Your task to perform on an android device: Go to Yahoo.com Image 0: 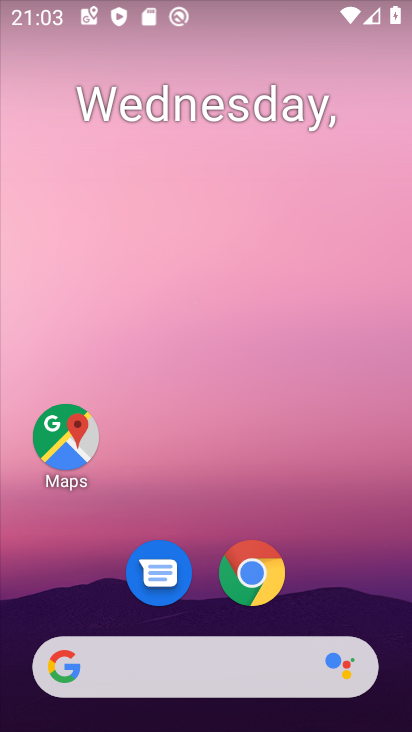
Step 0: click (252, 567)
Your task to perform on an android device: Go to Yahoo.com Image 1: 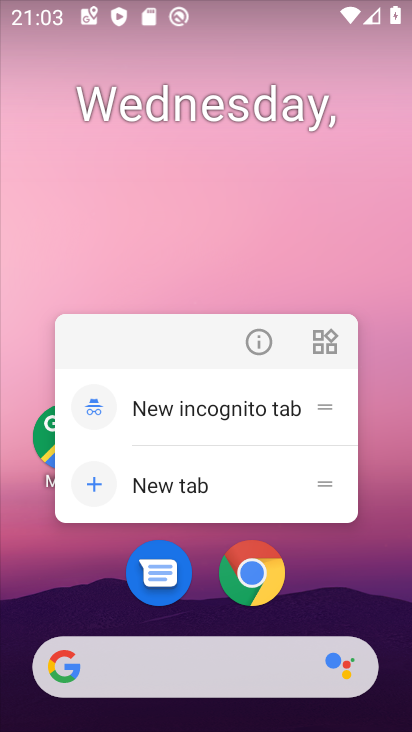
Step 1: click (252, 567)
Your task to perform on an android device: Go to Yahoo.com Image 2: 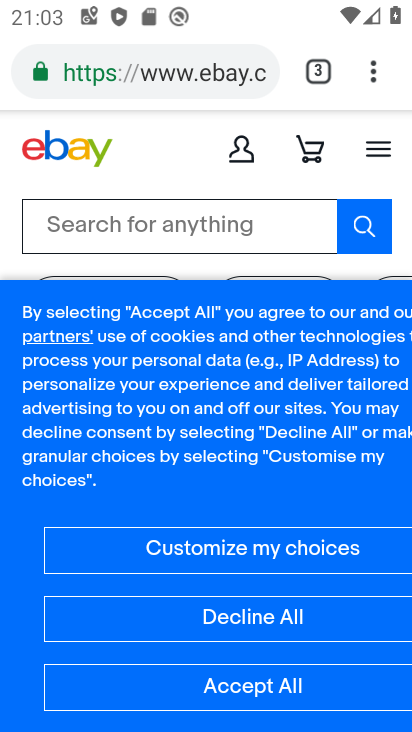
Step 2: click (262, 73)
Your task to perform on an android device: Go to Yahoo.com Image 3: 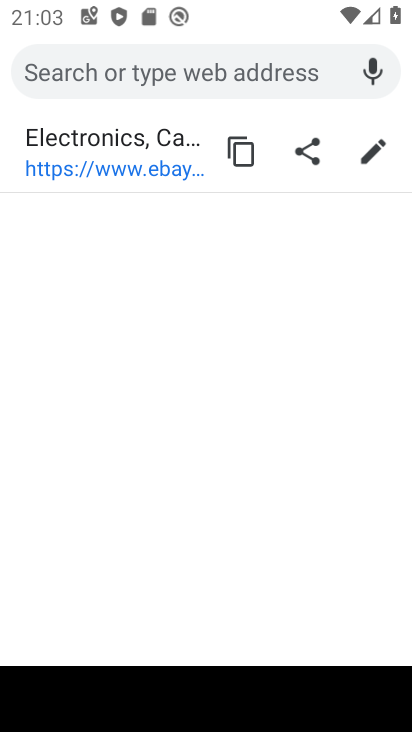
Step 3: type "Yahoo.com"
Your task to perform on an android device: Go to Yahoo.com Image 4: 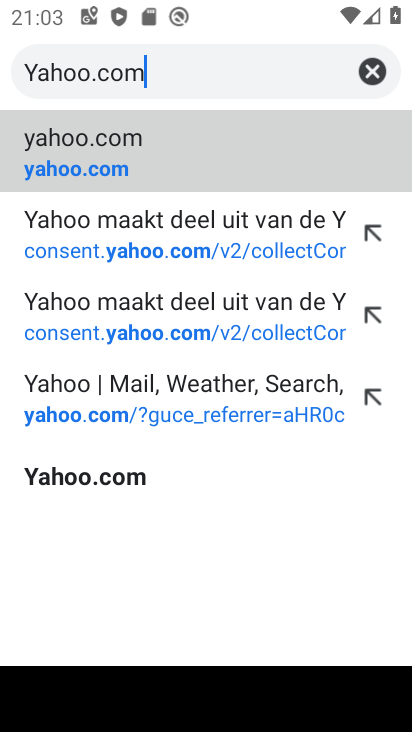
Step 4: click (91, 153)
Your task to perform on an android device: Go to Yahoo.com Image 5: 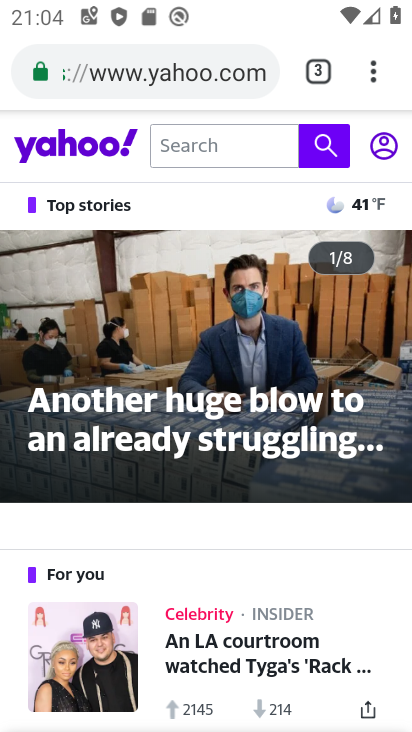
Step 5: task complete